Your task to perform on an android device: Search for sushi restaurants on Maps Image 0: 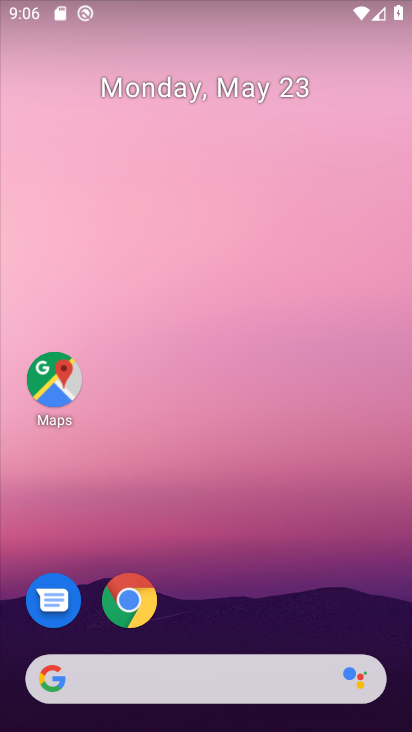
Step 0: drag from (199, 729) to (202, 7)
Your task to perform on an android device: Search for sushi restaurants on Maps Image 1: 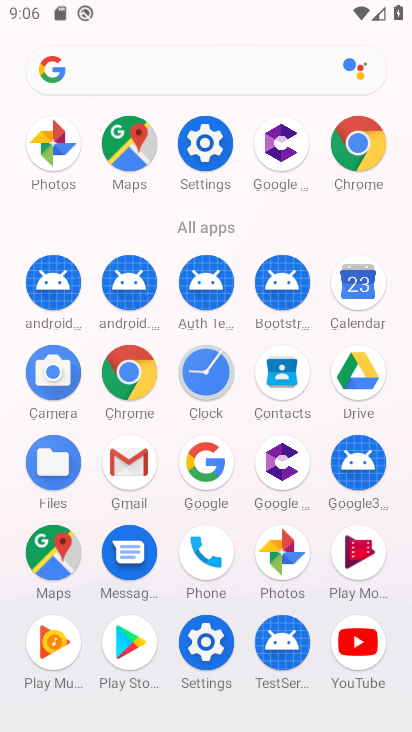
Step 1: click (49, 556)
Your task to perform on an android device: Search for sushi restaurants on Maps Image 2: 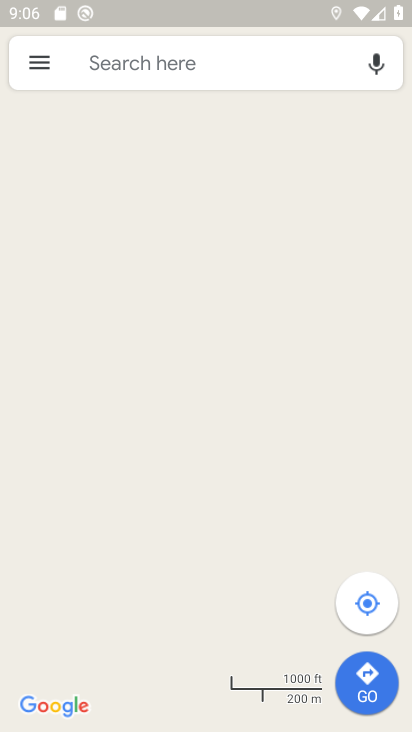
Step 2: click (167, 70)
Your task to perform on an android device: Search for sushi restaurants on Maps Image 3: 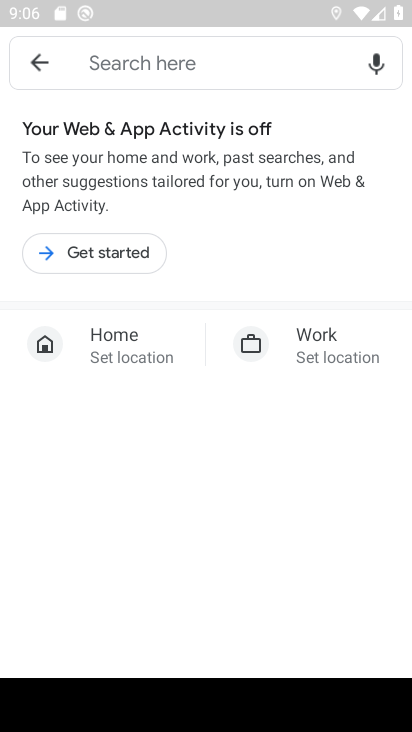
Step 3: type "sushi restaurants"
Your task to perform on an android device: Search for sushi restaurants on Maps Image 4: 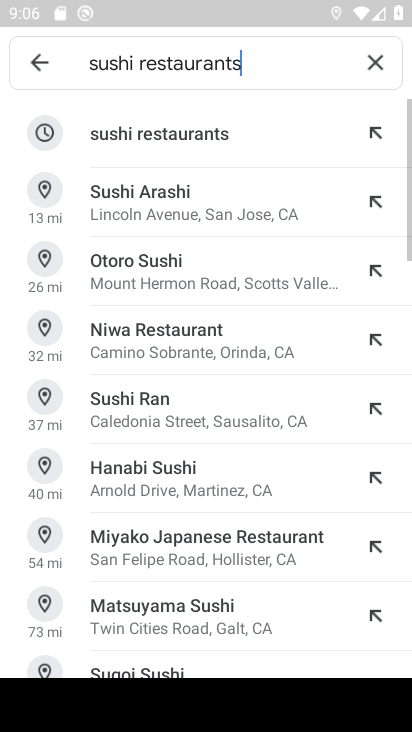
Step 4: click (147, 137)
Your task to perform on an android device: Search for sushi restaurants on Maps Image 5: 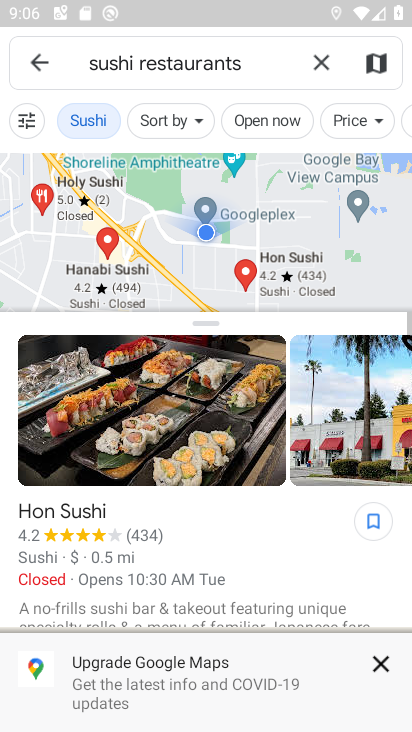
Step 5: task complete